Your task to perform on an android device: Open settings Image 0: 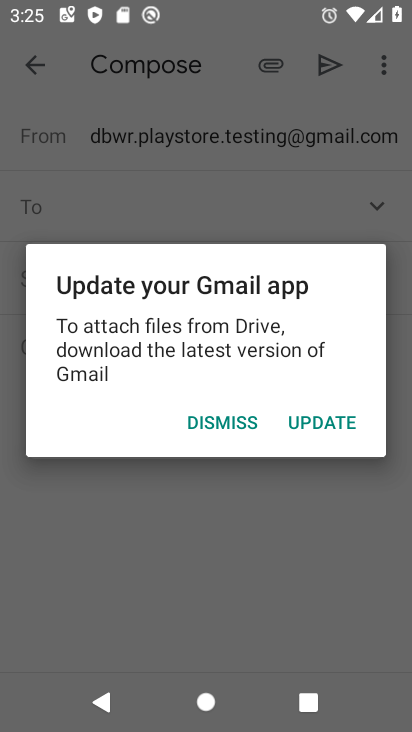
Step 0: press home button
Your task to perform on an android device: Open settings Image 1: 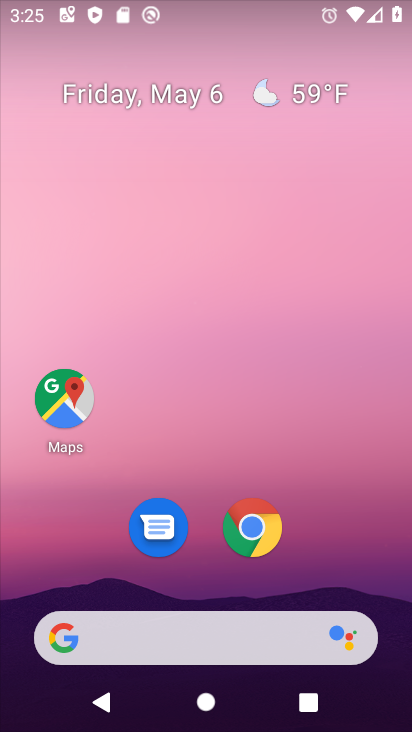
Step 1: drag from (303, 461) to (299, 90)
Your task to perform on an android device: Open settings Image 2: 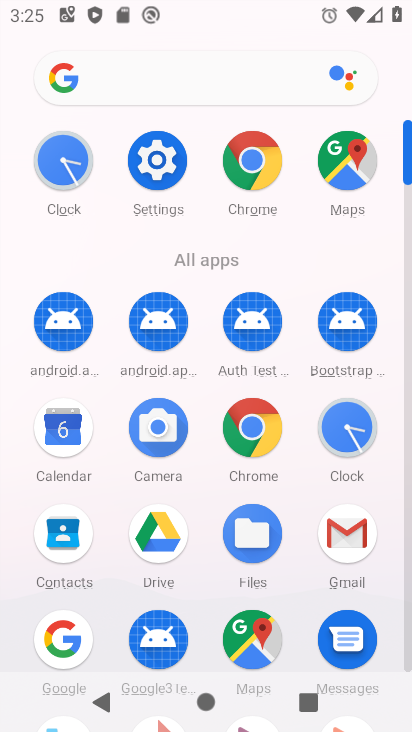
Step 2: click (162, 157)
Your task to perform on an android device: Open settings Image 3: 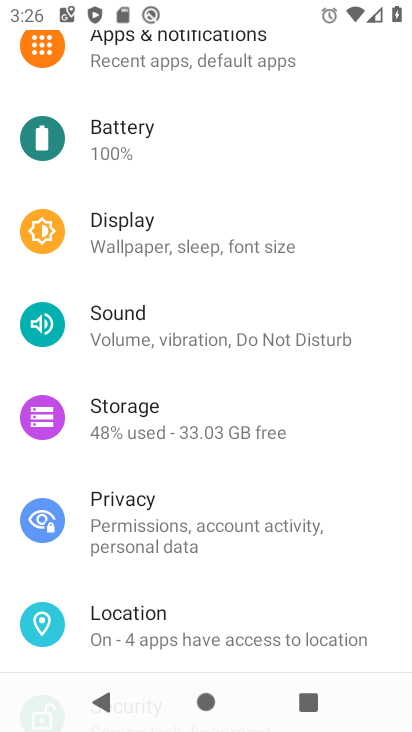
Step 3: task complete